Your task to perform on an android device: Play the last video I watched on Youtube Image 0: 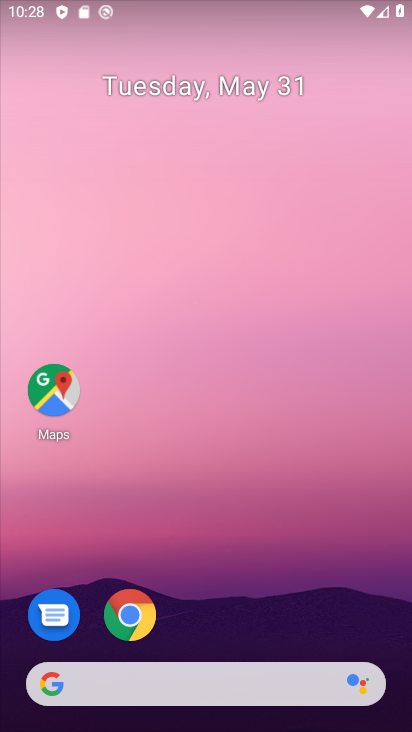
Step 0: task complete